Your task to perform on an android device: toggle data saver in the chrome app Image 0: 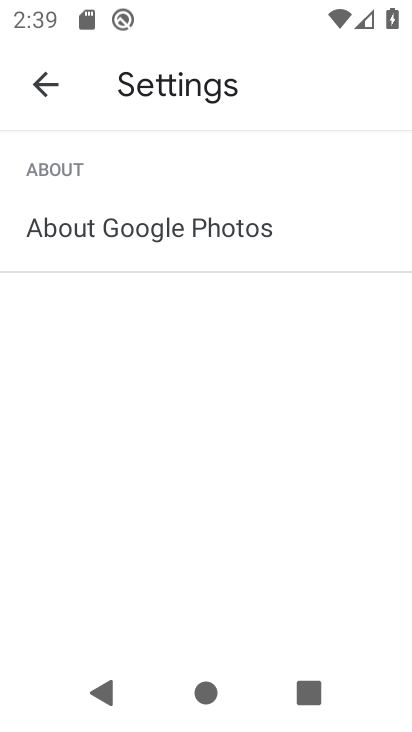
Step 0: press home button
Your task to perform on an android device: toggle data saver in the chrome app Image 1: 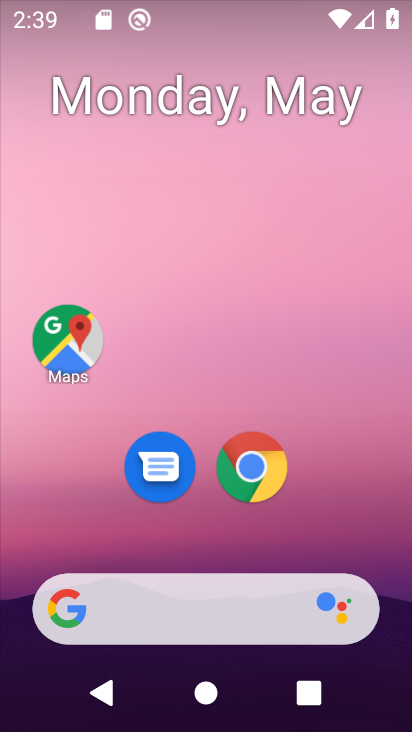
Step 1: click (263, 464)
Your task to perform on an android device: toggle data saver in the chrome app Image 2: 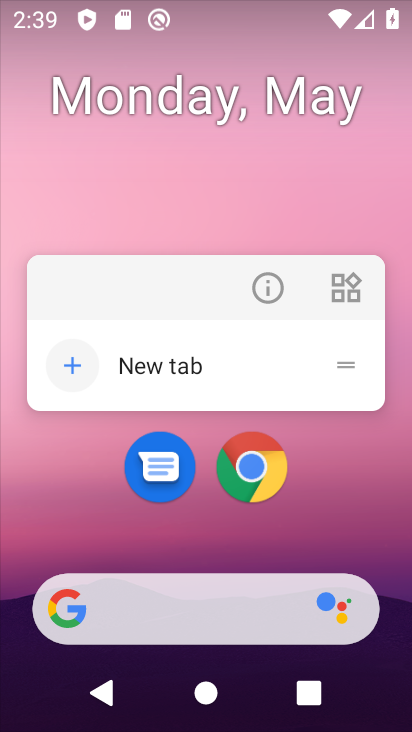
Step 2: click (265, 464)
Your task to perform on an android device: toggle data saver in the chrome app Image 3: 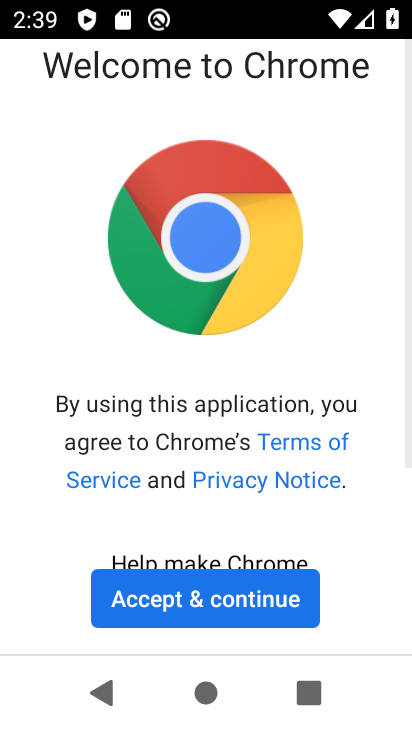
Step 3: click (251, 610)
Your task to perform on an android device: toggle data saver in the chrome app Image 4: 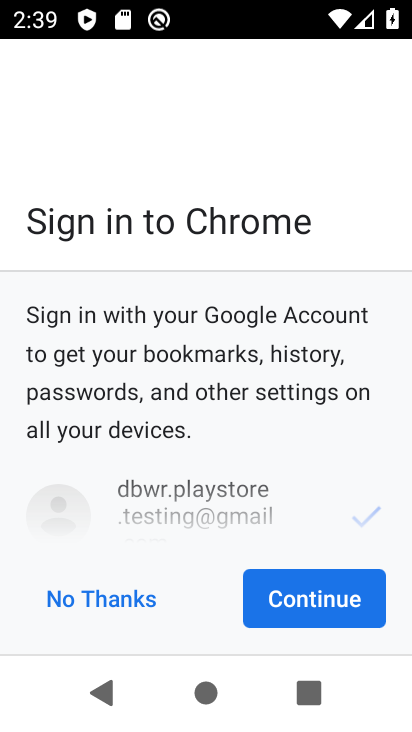
Step 4: click (319, 591)
Your task to perform on an android device: toggle data saver in the chrome app Image 5: 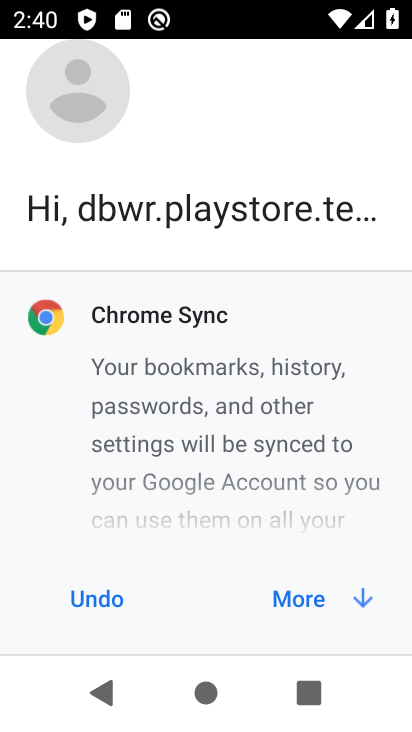
Step 5: click (319, 591)
Your task to perform on an android device: toggle data saver in the chrome app Image 6: 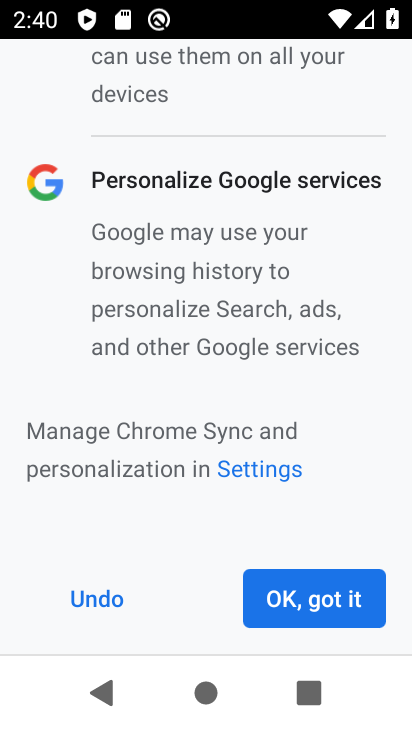
Step 6: click (319, 591)
Your task to perform on an android device: toggle data saver in the chrome app Image 7: 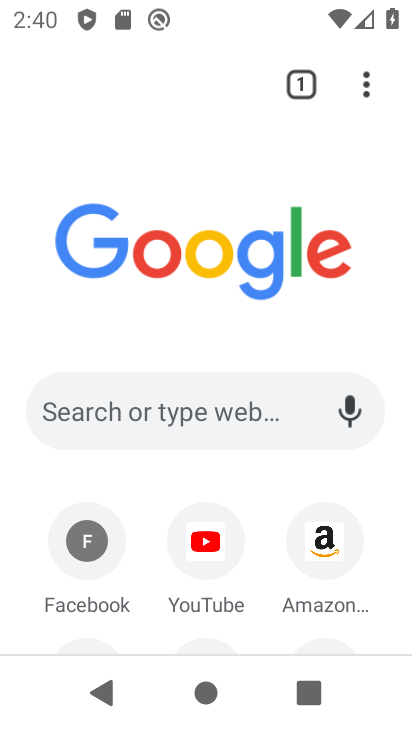
Step 7: click (367, 92)
Your task to perform on an android device: toggle data saver in the chrome app Image 8: 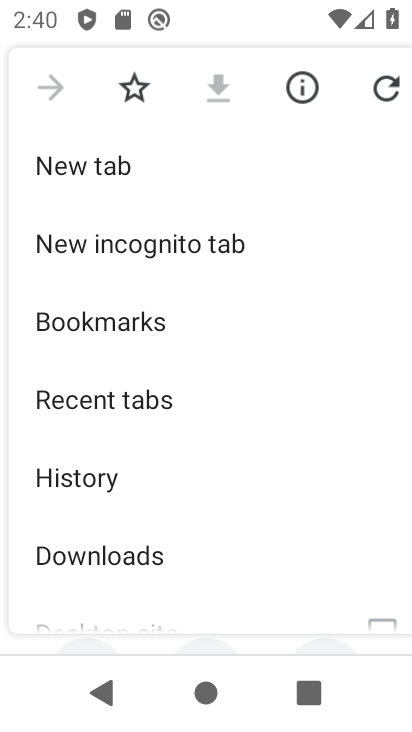
Step 8: drag from (192, 518) to (164, 253)
Your task to perform on an android device: toggle data saver in the chrome app Image 9: 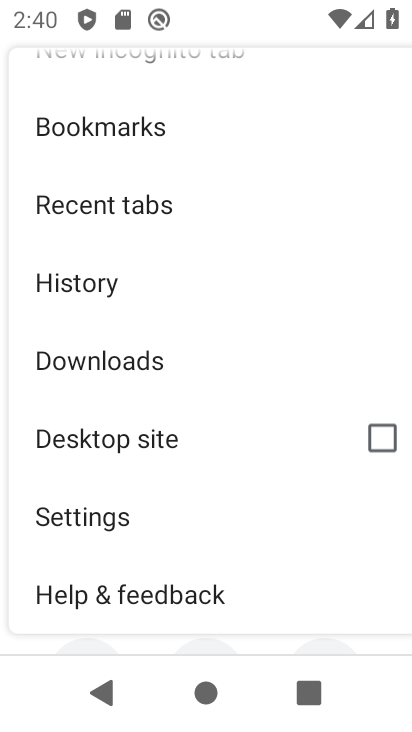
Step 9: click (137, 524)
Your task to perform on an android device: toggle data saver in the chrome app Image 10: 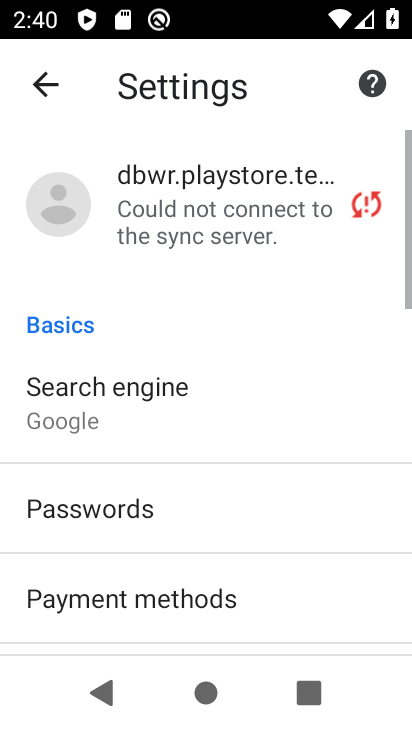
Step 10: drag from (137, 552) to (157, 201)
Your task to perform on an android device: toggle data saver in the chrome app Image 11: 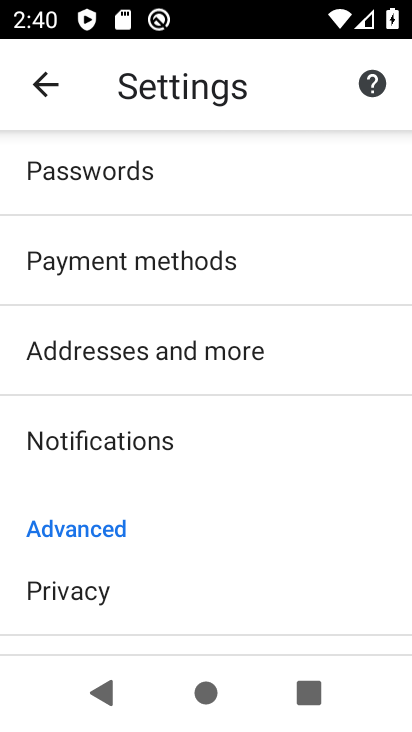
Step 11: drag from (145, 550) to (152, 259)
Your task to perform on an android device: toggle data saver in the chrome app Image 12: 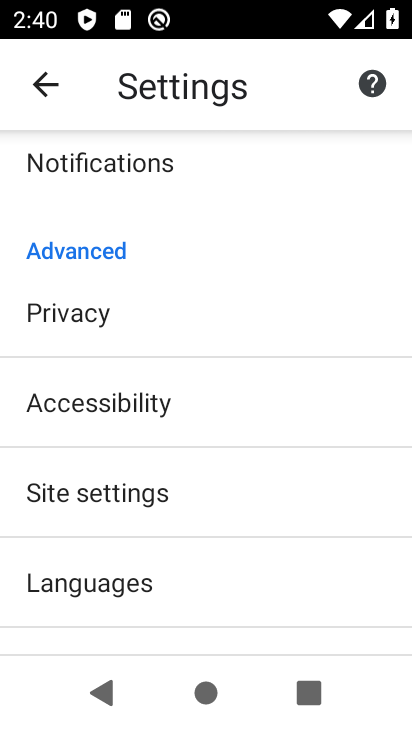
Step 12: drag from (159, 546) to (145, 272)
Your task to perform on an android device: toggle data saver in the chrome app Image 13: 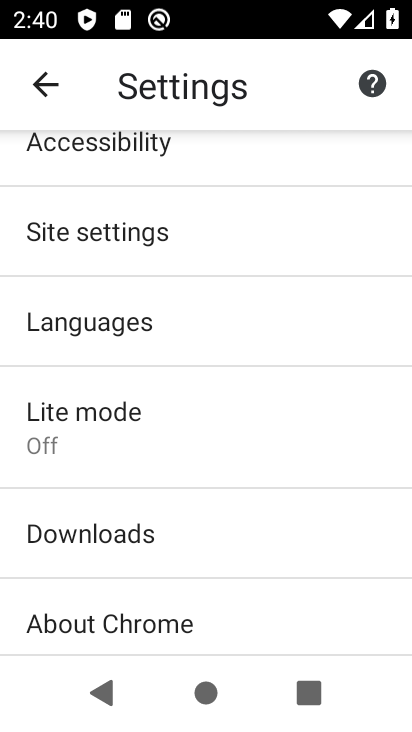
Step 13: click (118, 419)
Your task to perform on an android device: toggle data saver in the chrome app Image 14: 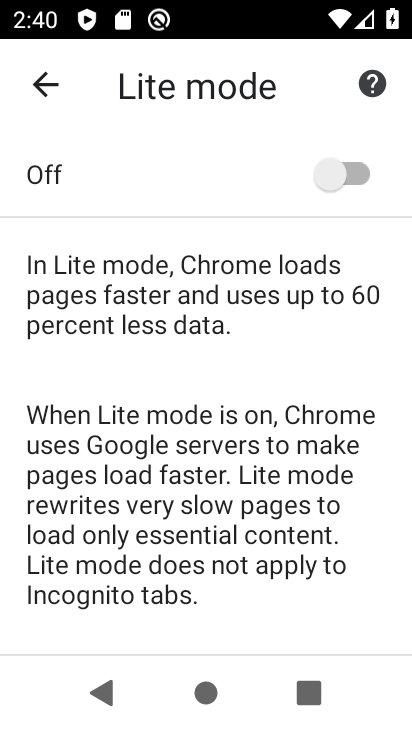
Step 14: click (354, 183)
Your task to perform on an android device: toggle data saver in the chrome app Image 15: 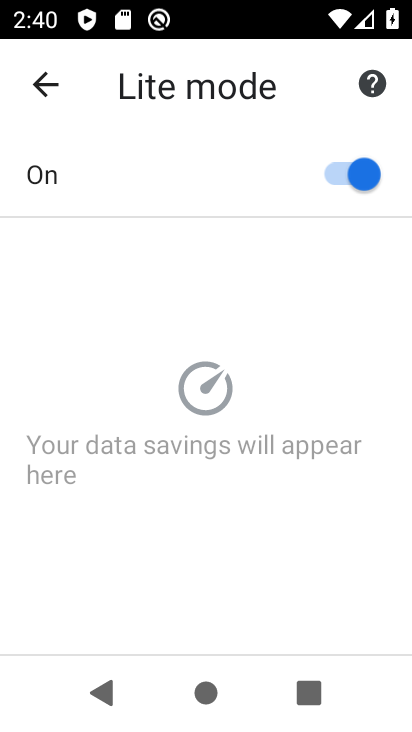
Step 15: task complete